Your task to perform on an android device: Open Android settings Image 0: 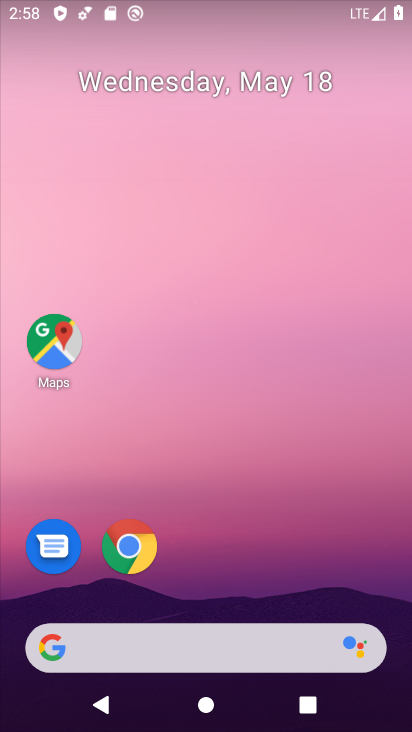
Step 0: drag from (230, 641) to (251, 103)
Your task to perform on an android device: Open Android settings Image 1: 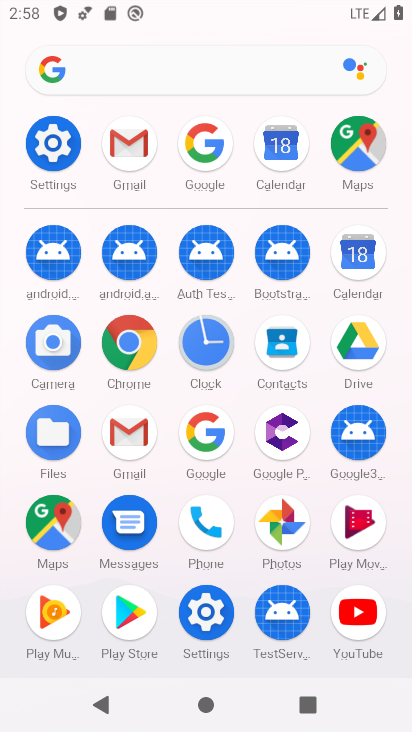
Step 1: click (47, 143)
Your task to perform on an android device: Open Android settings Image 2: 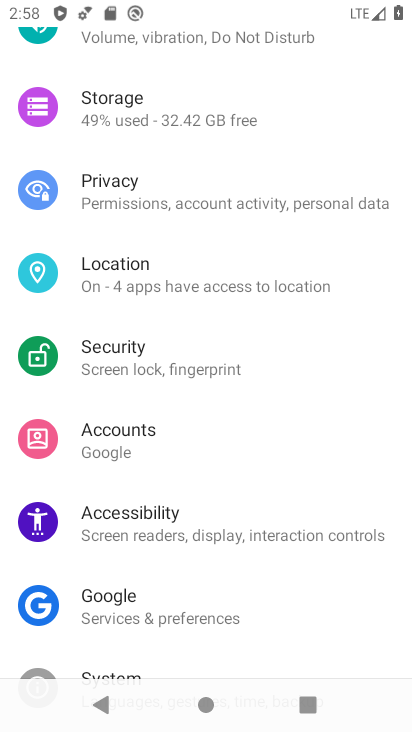
Step 2: task complete